Your task to perform on an android device: change the clock display to digital Image 0: 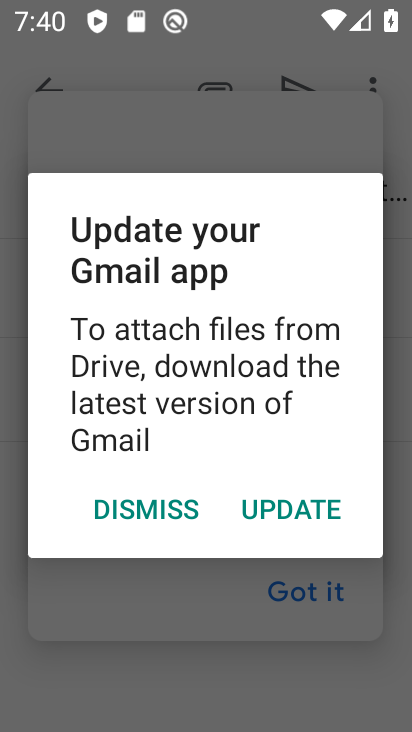
Step 0: press home button
Your task to perform on an android device: change the clock display to digital Image 1: 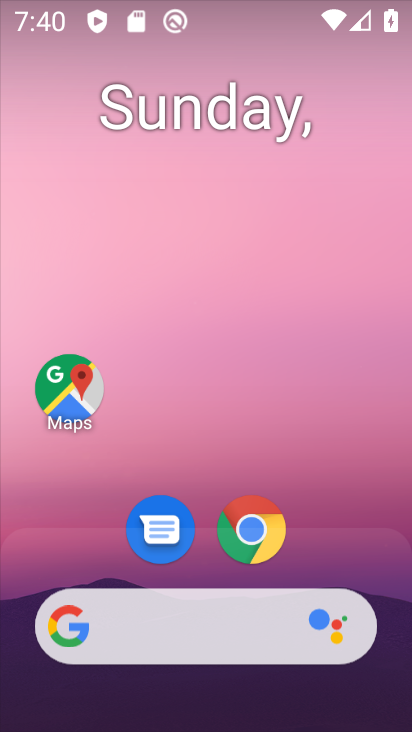
Step 1: drag from (395, 500) to (328, 3)
Your task to perform on an android device: change the clock display to digital Image 2: 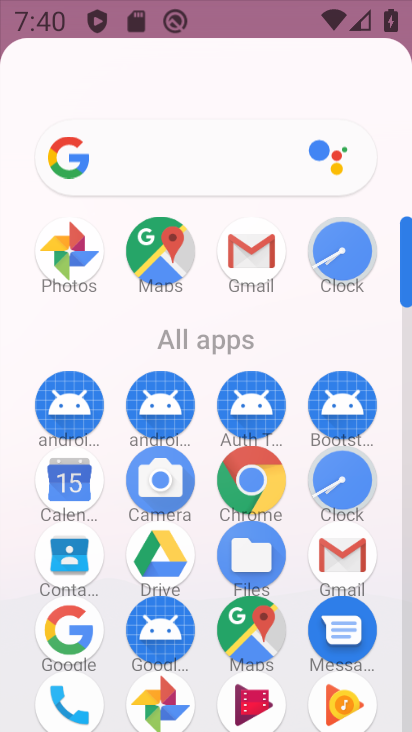
Step 2: drag from (328, 3) to (310, 35)
Your task to perform on an android device: change the clock display to digital Image 3: 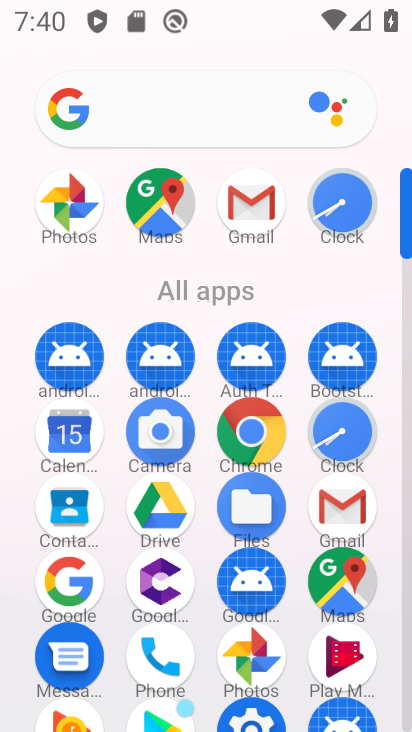
Step 3: click (344, 234)
Your task to perform on an android device: change the clock display to digital Image 4: 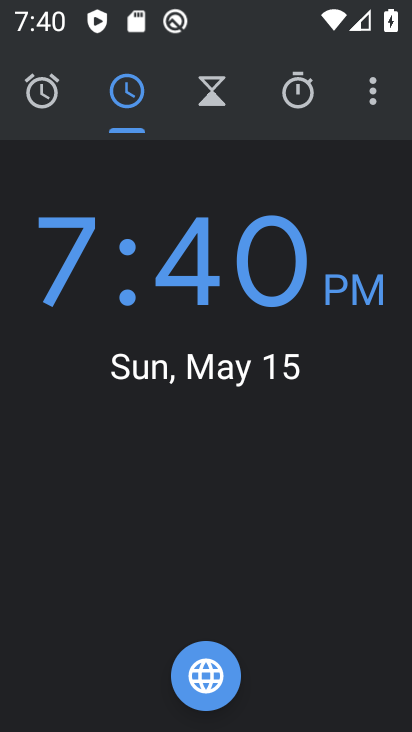
Step 4: click (380, 78)
Your task to perform on an android device: change the clock display to digital Image 5: 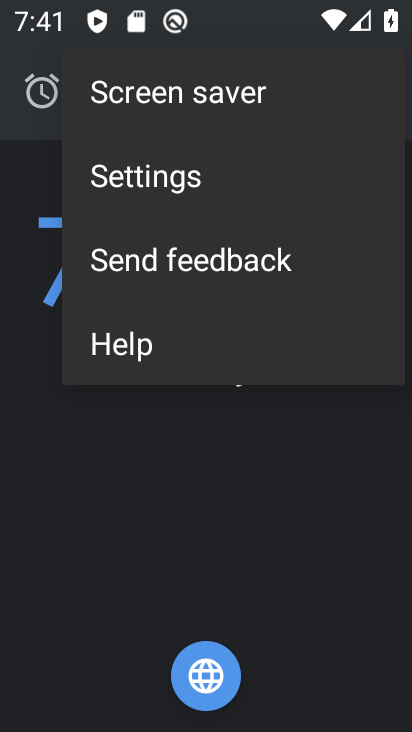
Step 5: click (186, 193)
Your task to perform on an android device: change the clock display to digital Image 6: 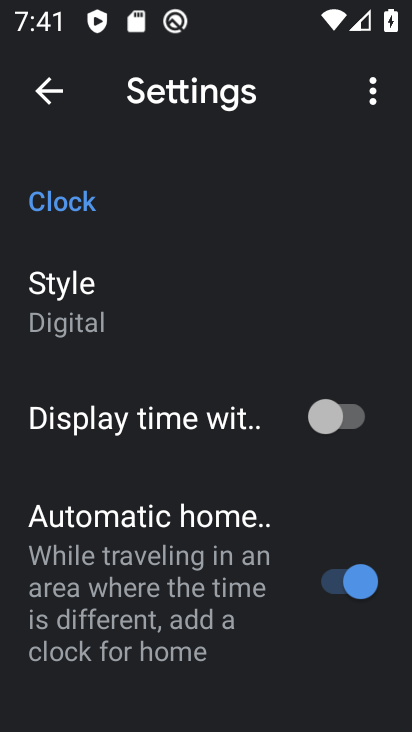
Step 6: task complete